Your task to perform on an android device: clear all cookies in the chrome app Image 0: 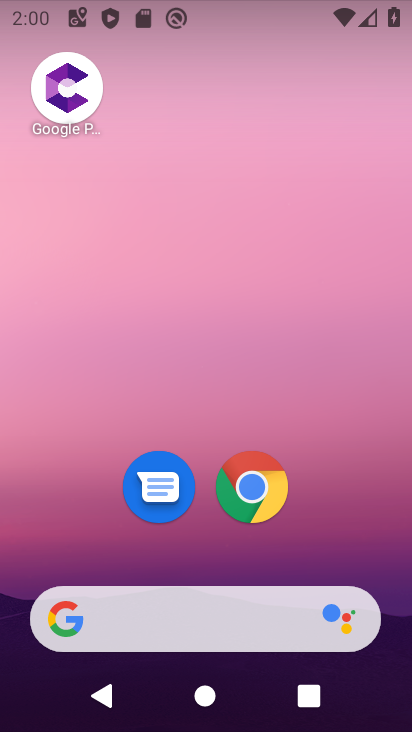
Step 0: click (253, 476)
Your task to perform on an android device: clear all cookies in the chrome app Image 1: 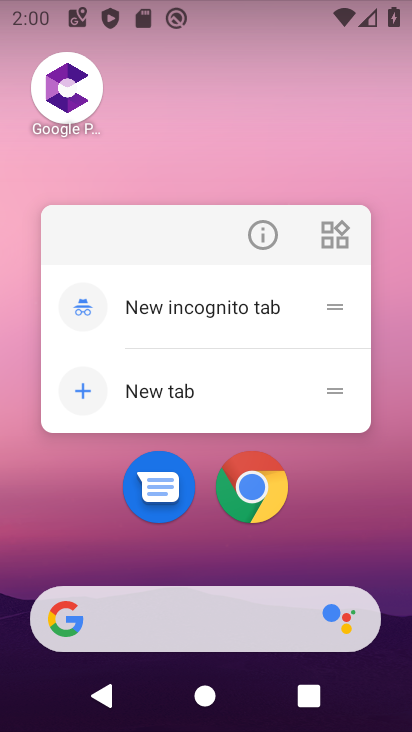
Step 1: click (269, 492)
Your task to perform on an android device: clear all cookies in the chrome app Image 2: 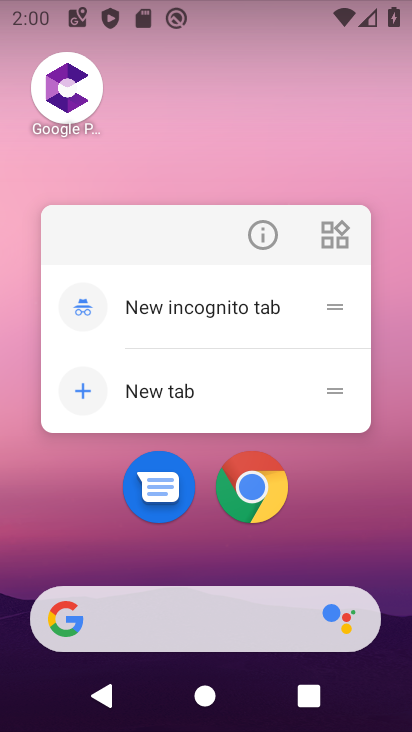
Step 2: click (264, 514)
Your task to perform on an android device: clear all cookies in the chrome app Image 3: 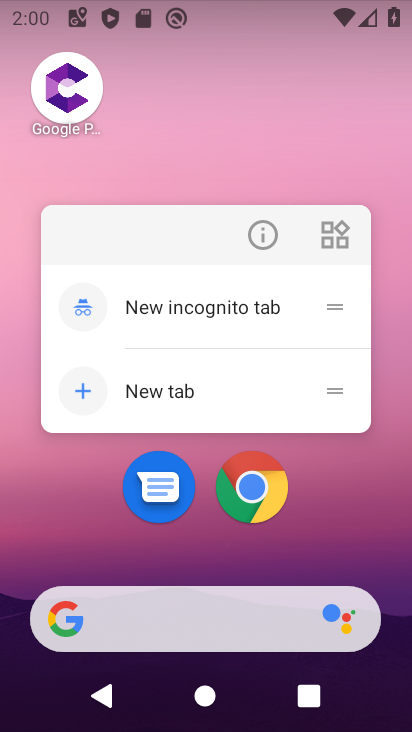
Step 3: click (263, 506)
Your task to perform on an android device: clear all cookies in the chrome app Image 4: 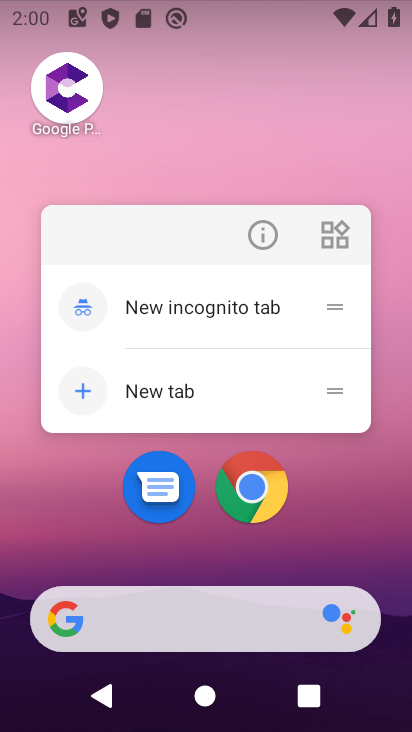
Step 4: click (263, 459)
Your task to perform on an android device: clear all cookies in the chrome app Image 5: 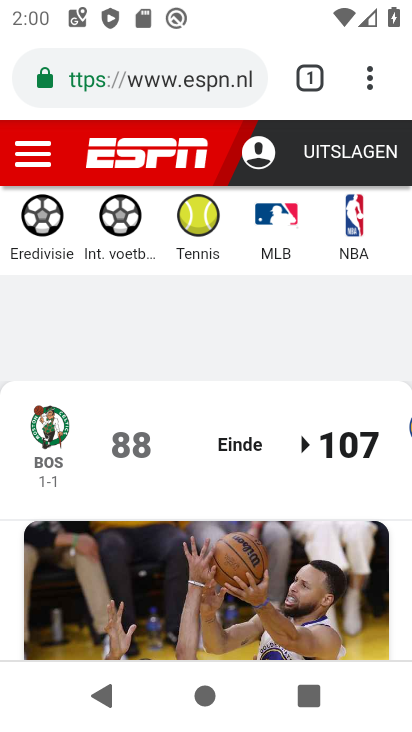
Step 5: drag from (363, 74) to (221, 541)
Your task to perform on an android device: clear all cookies in the chrome app Image 6: 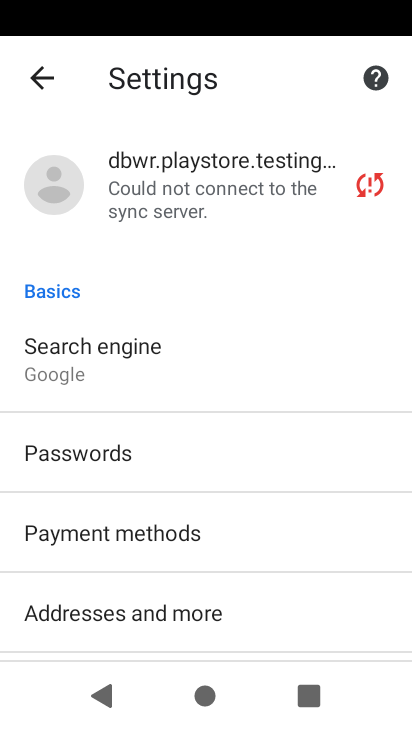
Step 6: drag from (147, 577) to (250, 165)
Your task to perform on an android device: clear all cookies in the chrome app Image 7: 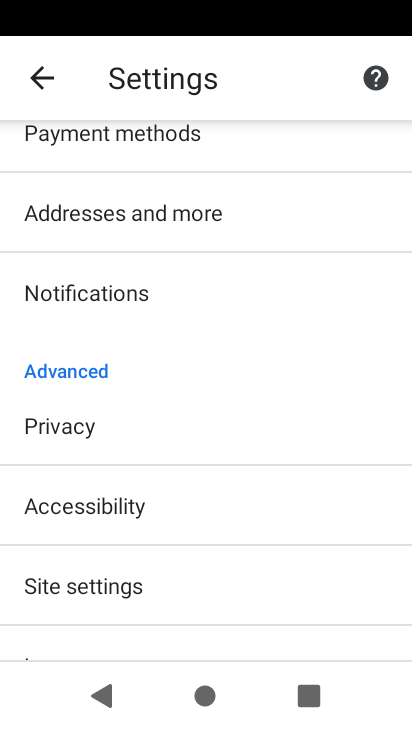
Step 7: click (151, 446)
Your task to perform on an android device: clear all cookies in the chrome app Image 8: 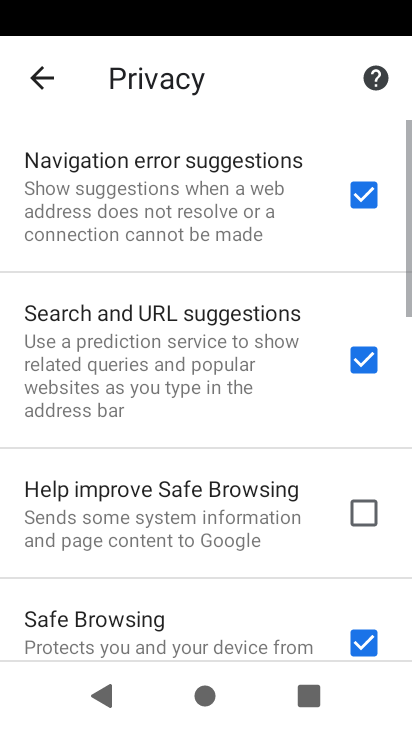
Step 8: drag from (142, 586) to (248, 118)
Your task to perform on an android device: clear all cookies in the chrome app Image 9: 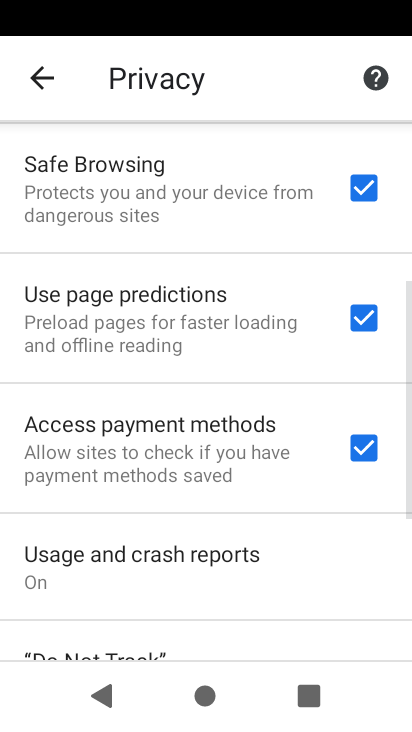
Step 9: drag from (217, 616) to (292, 192)
Your task to perform on an android device: clear all cookies in the chrome app Image 10: 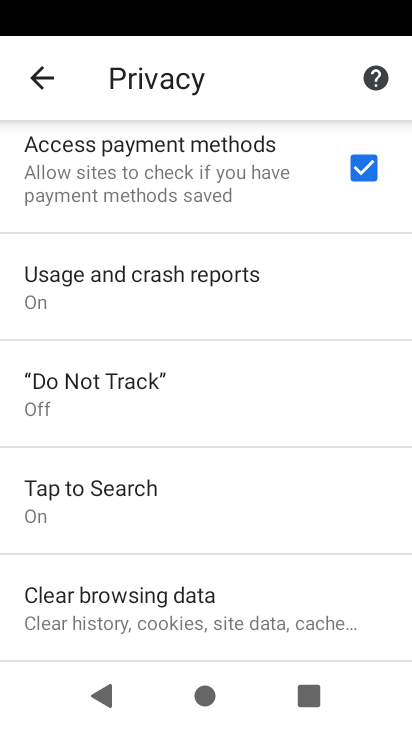
Step 10: click (230, 617)
Your task to perform on an android device: clear all cookies in the chrome app Image 11: 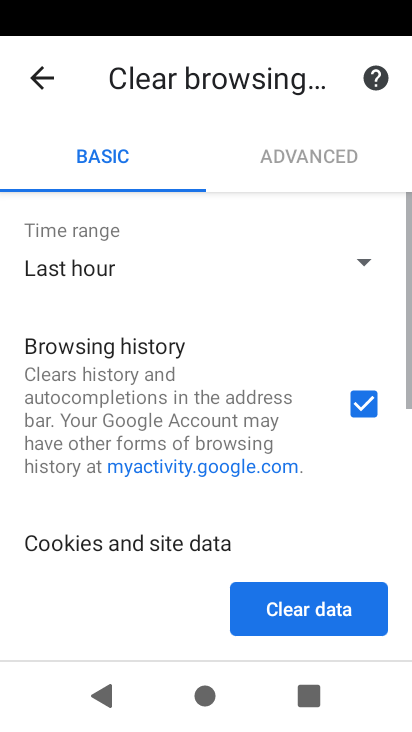
Step 11: drag from (226, 516) to (288, 226)
Your task to perform on an android device: clear all cookies in the chrome app Image 12: 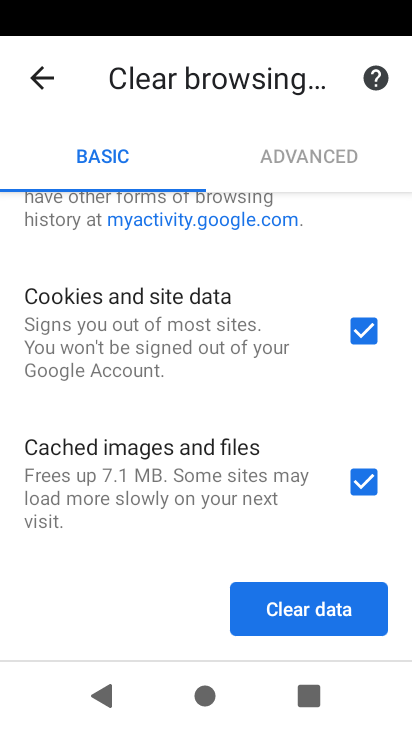
Step 12: drag from (268, 342) to (239, 463)
Your task to perform on an android device: clear all cookies in the chrome app Image 13: 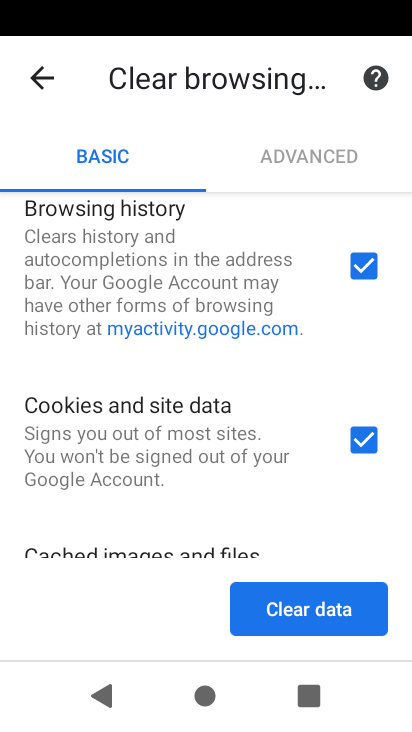
Step 13: click (368, 272)
Your task to perform on an android device: clear all cookies in the chrome app Image 14: 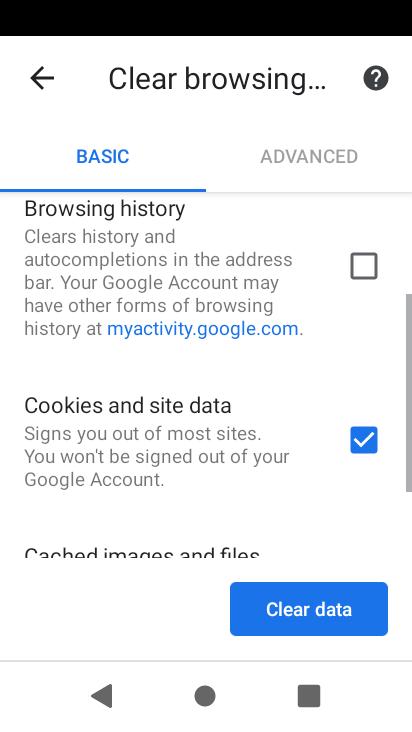
Step 14: drag from (249, 472) to (305, 212)
Your task to perform on an android device: clear all cookies in the chrome app Image 15: 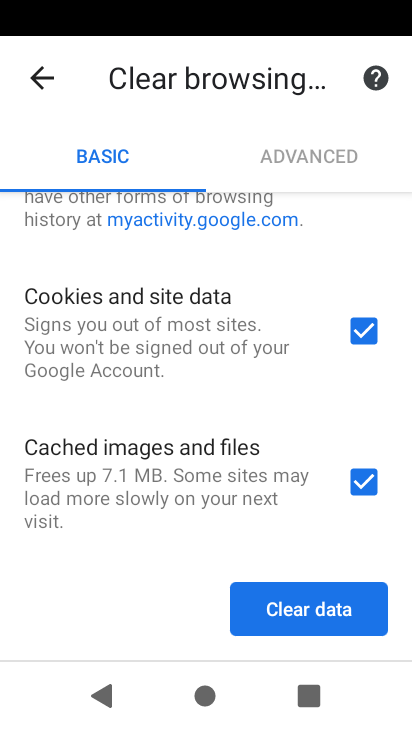
Step 15: click (366, 494)
Your task to perform on an android device: clear all cookies in the chrome app Image 16: 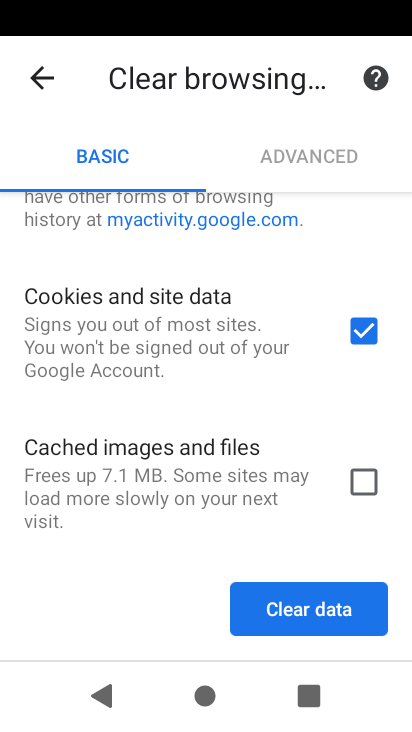
Step 16: click (293, 616)
Your task to perform on an android device: clear all cookies in the chrome app Image 17: 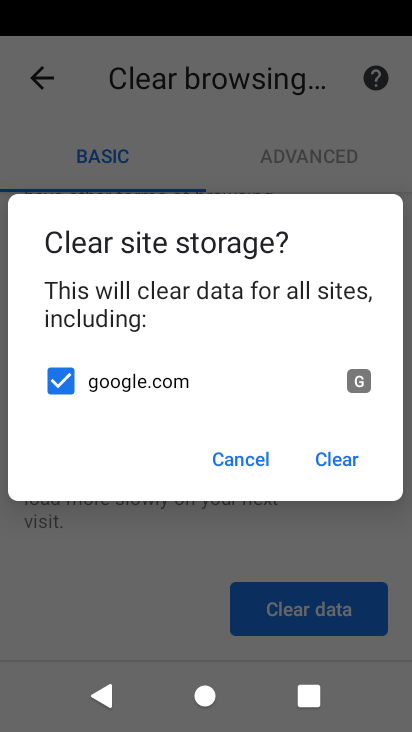
Step 17: click (363, 449)
Your task to perform on an android device: clear all cookies in the chrome app Image 18: 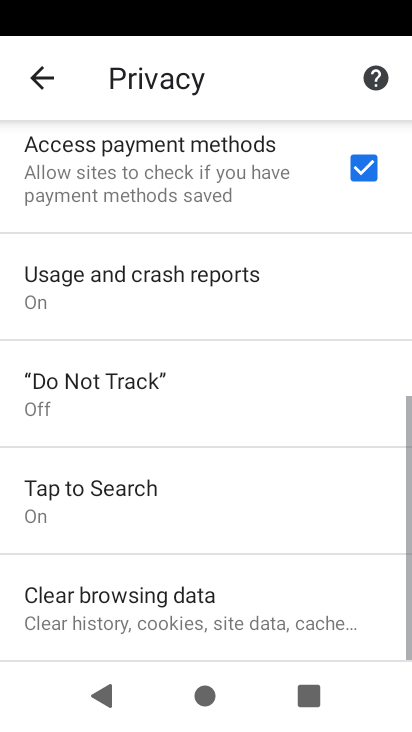
Step 18: task complete